Your task to perform on an android device: set the timer Image 0: 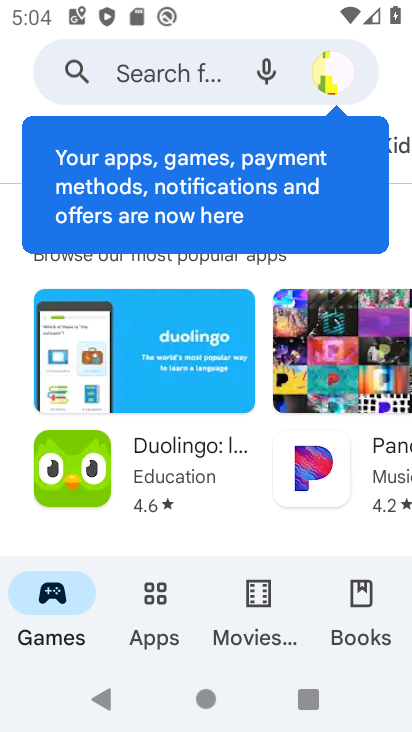
Step 0: press home button
Your task to perform on an android device: set the timer Image 1: 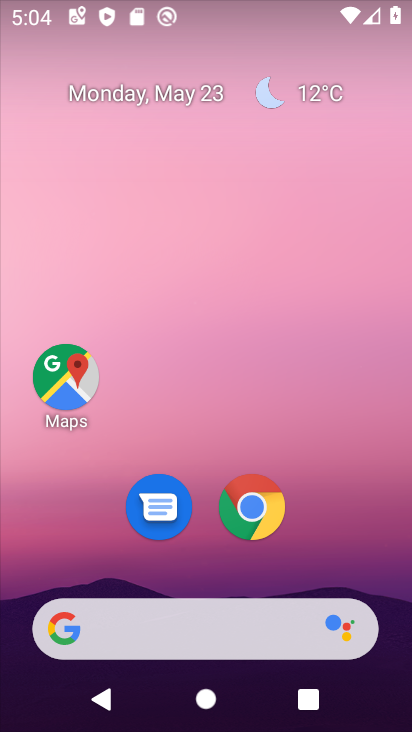
Step 1: task complete